Your task to perform on an android device: install app "Pandora - Music & Podcasts" Image 0: 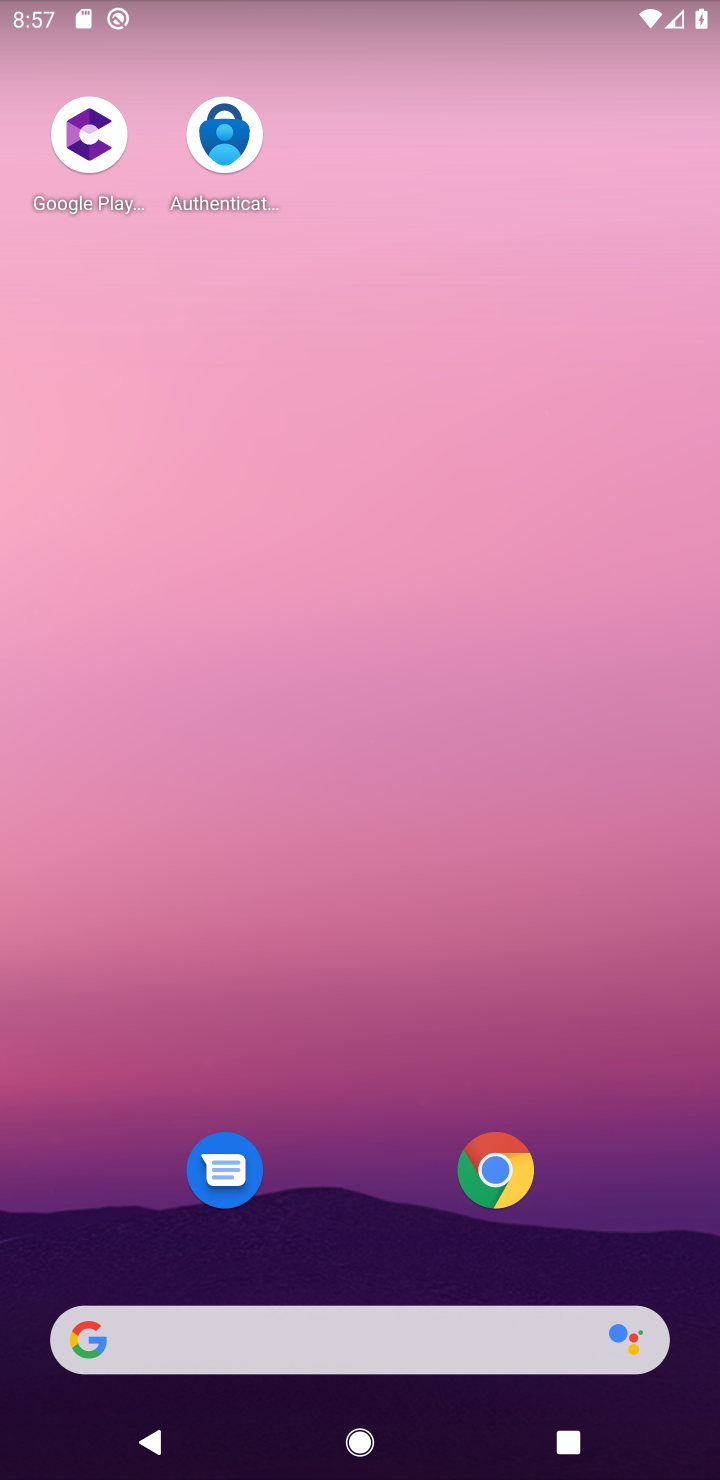
Step 0: drag from (367, 1205) to (271, 84)
Your task to perform on an android device: install app "Pandora - Music & Podcasts" Image 1: 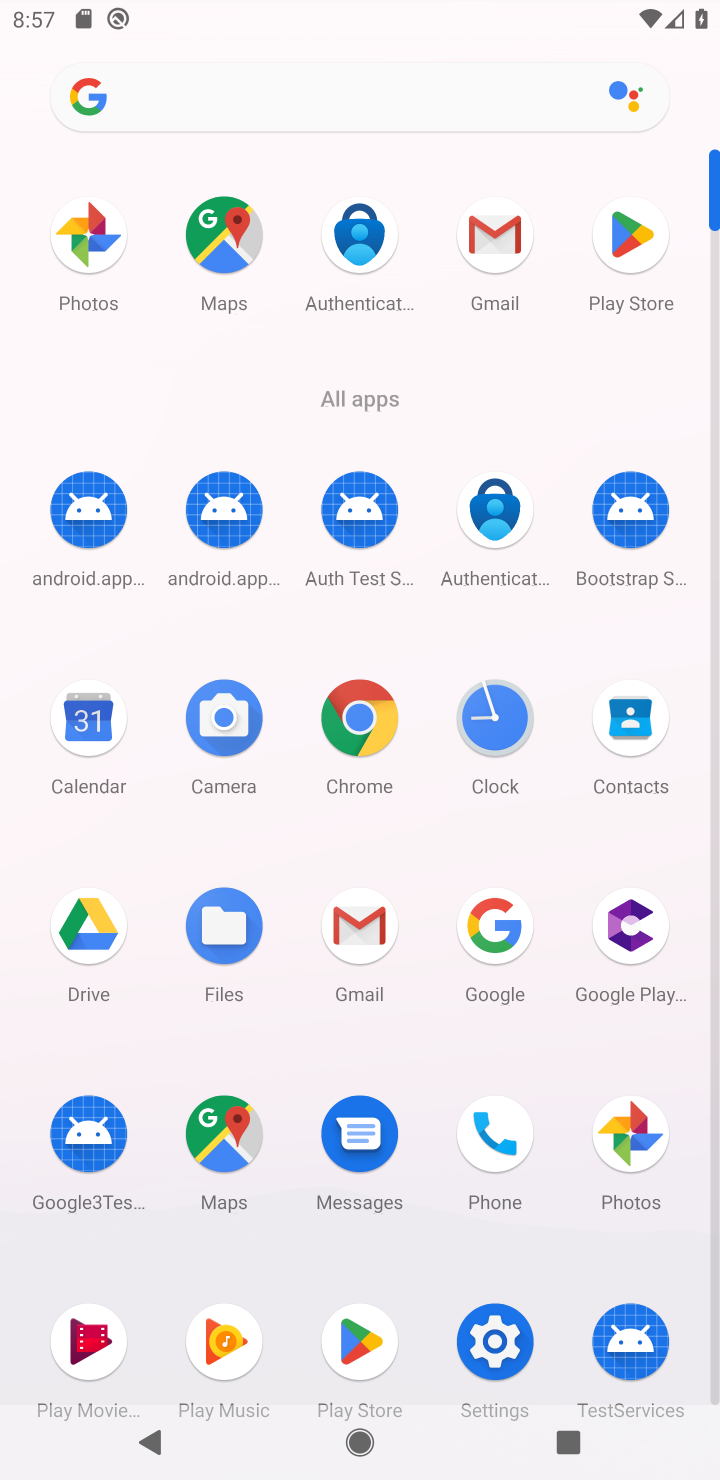
Step 1: click (623, 243)
Your task to perform on an android device: install app "Pandora - Music & Podcasts" Image 2: 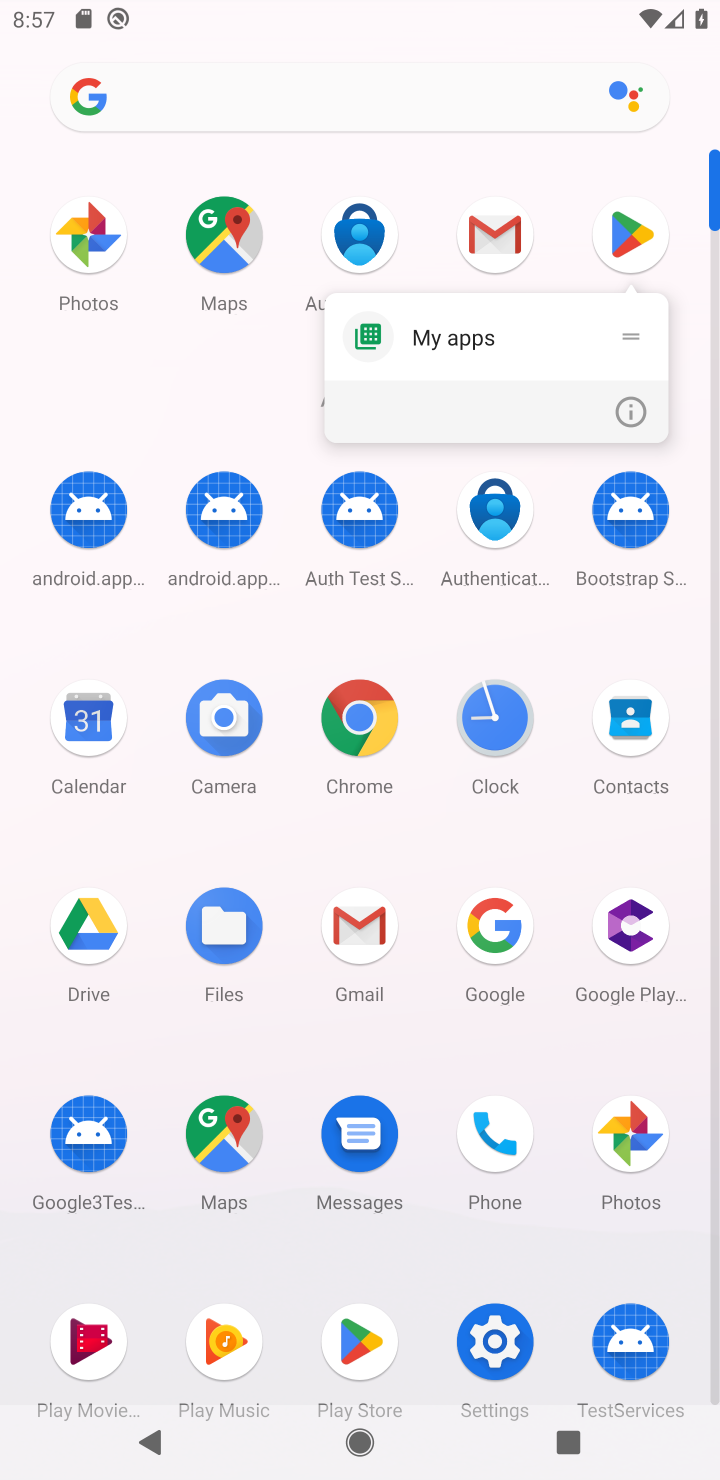
Step 2: click (625, 271)
Your task to perform on an android device: install app "Pandora - Music & Podcasts" Image 3: 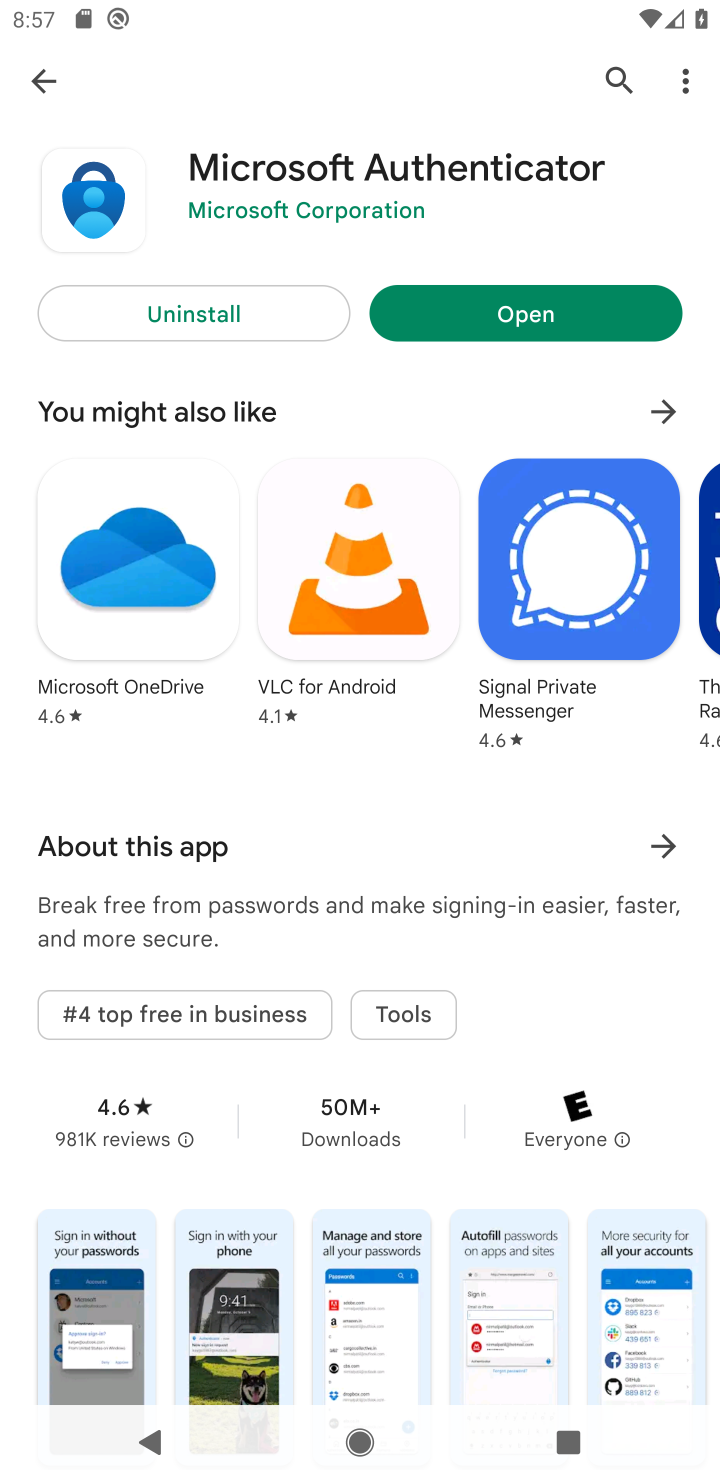
Step 3: press back button
Your task to perform on an android device: install app "Pandora - Music & Podcasts" Image 4: 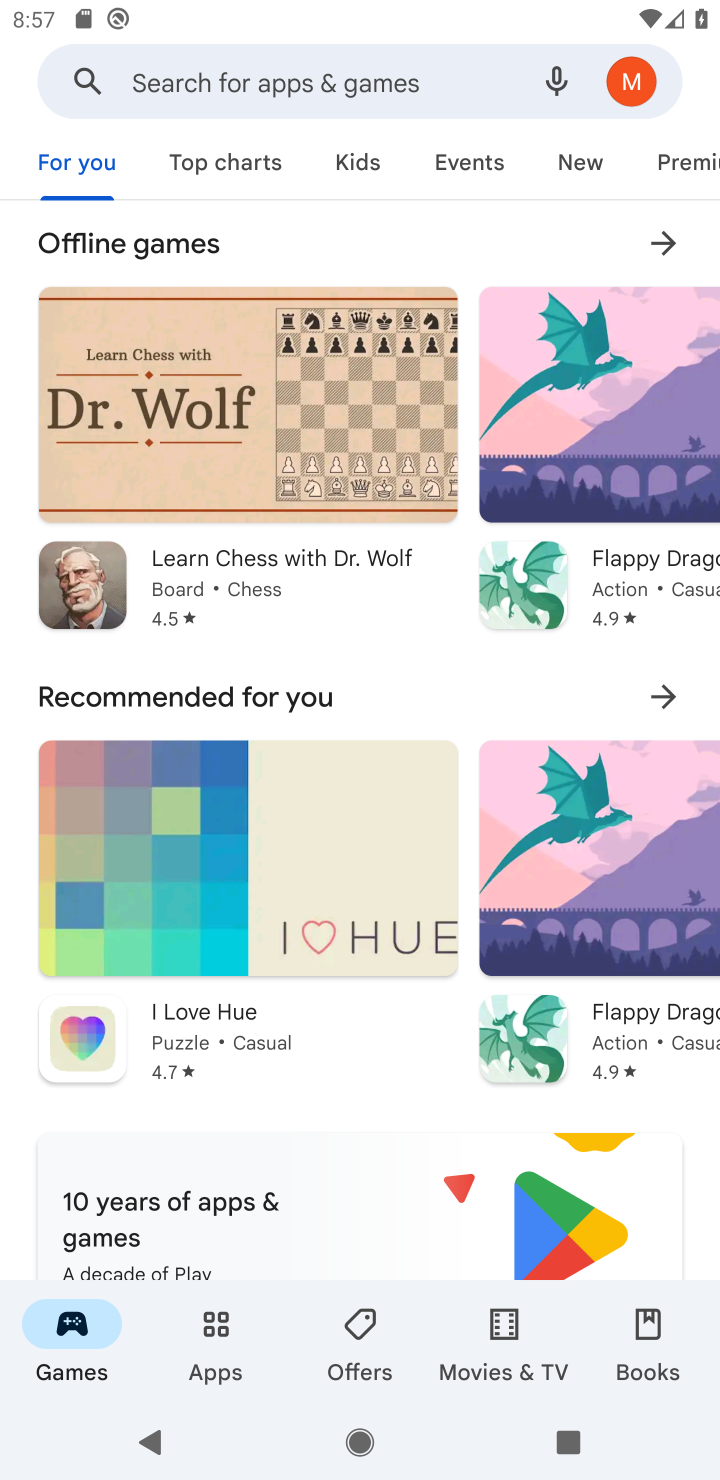
Step 4: click (285, 99)
Your task to perform on an android device: install app "Pandora - Music & Podcasts" Image 5: 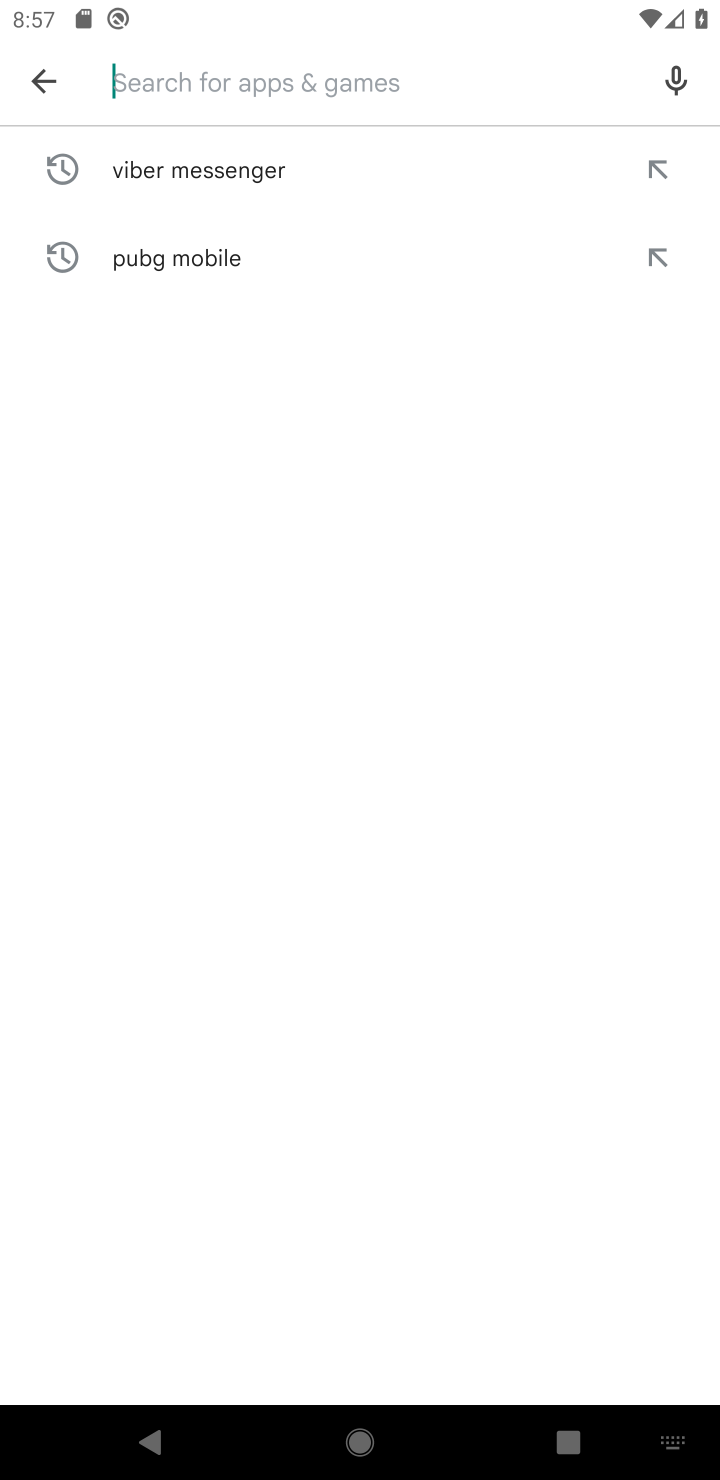
Step 5: type "Pandora - Music & Podcasts"
Your task to perform on an android device: install app "Pandora - Music & Podcasts" Image 6: 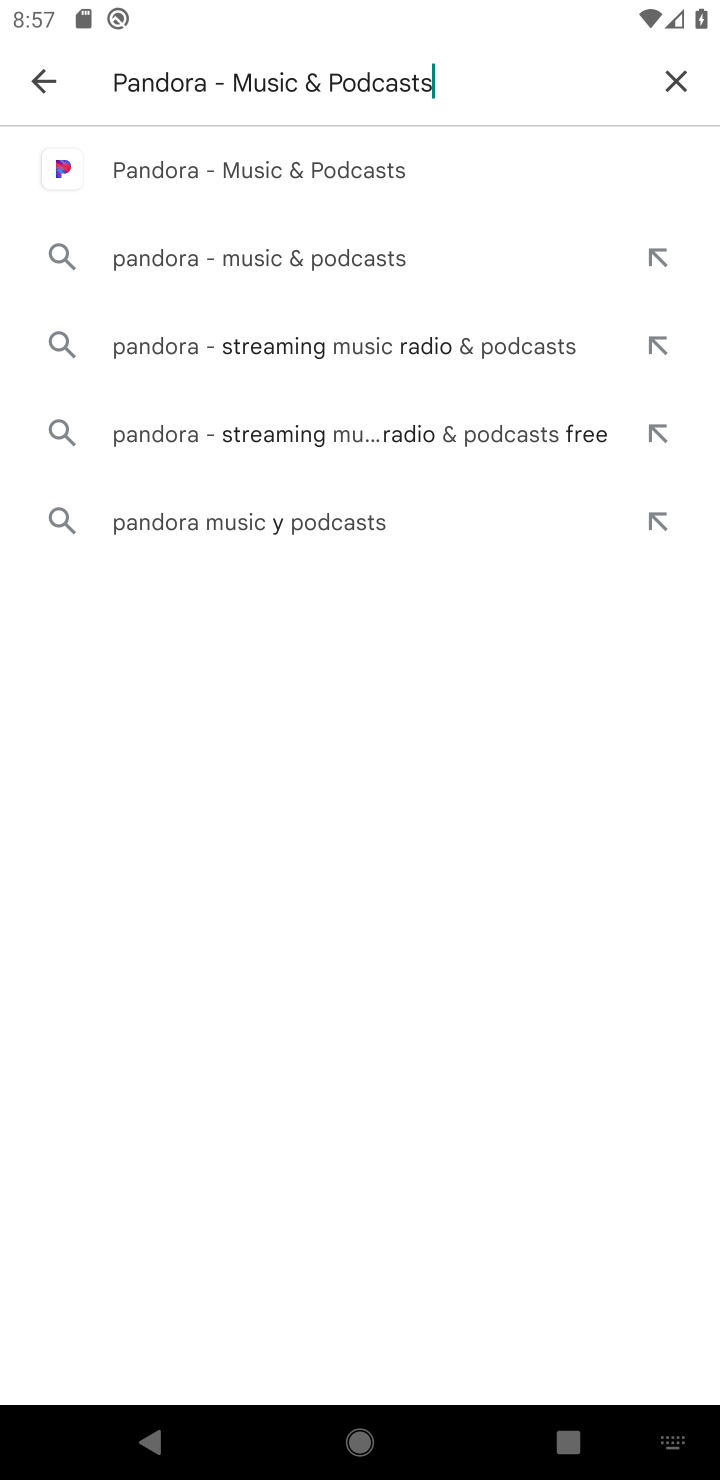
Step 6: click (203, 168)
Your task to perform on an android device: install app "Pandora - Music & Podcasts" Image 7: 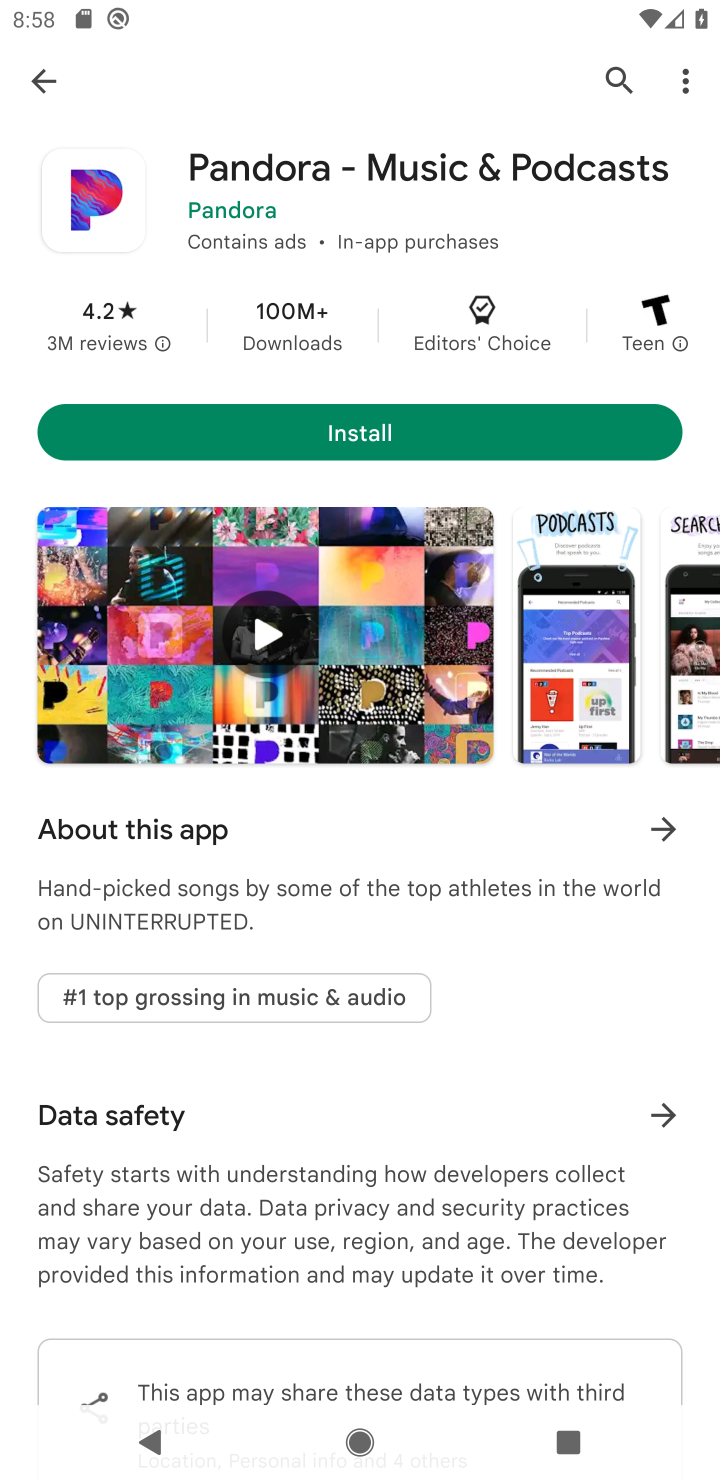
Step 7: click (266, 435)
Your task to perform on an android device: install app "Pandora - Music & Podcasts" Image 8: 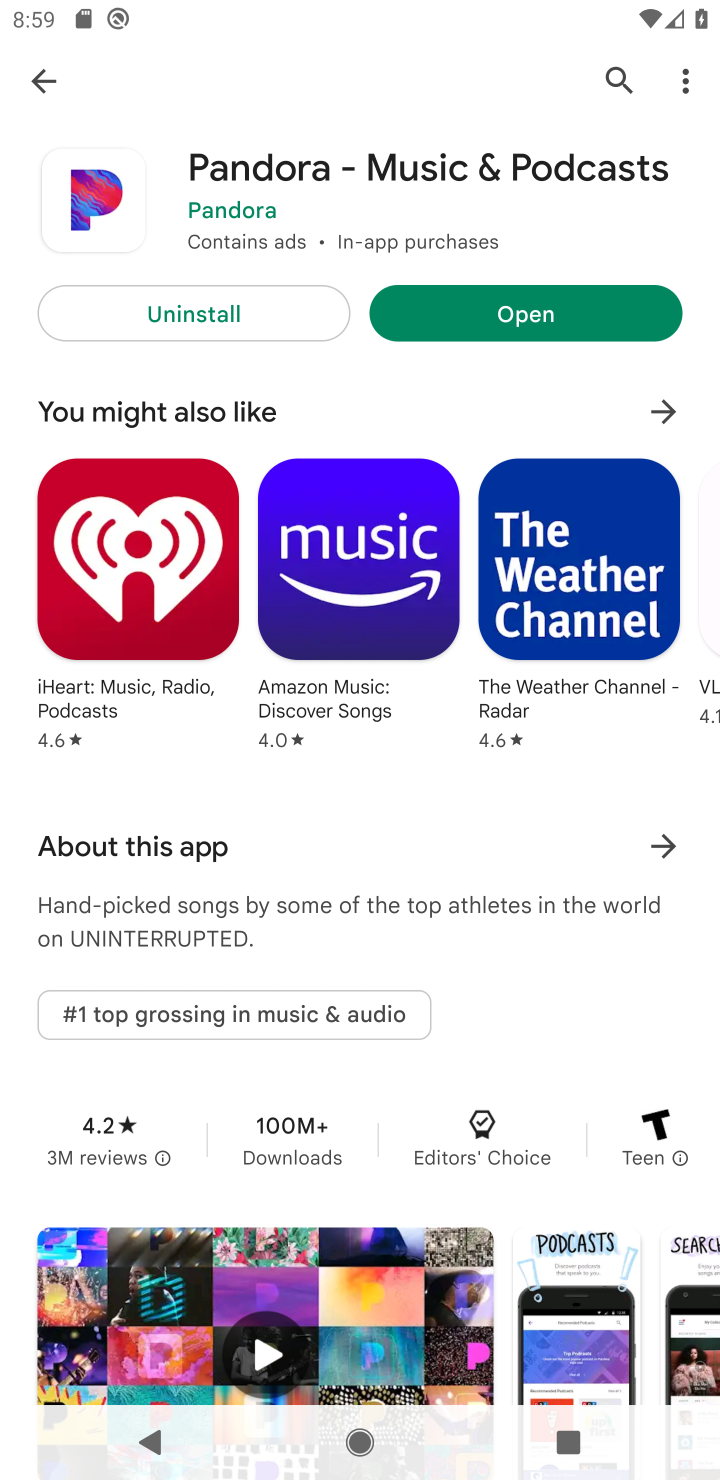
Step 8: task complete